Your task to perform on an android device: Open battery settings Image 0: 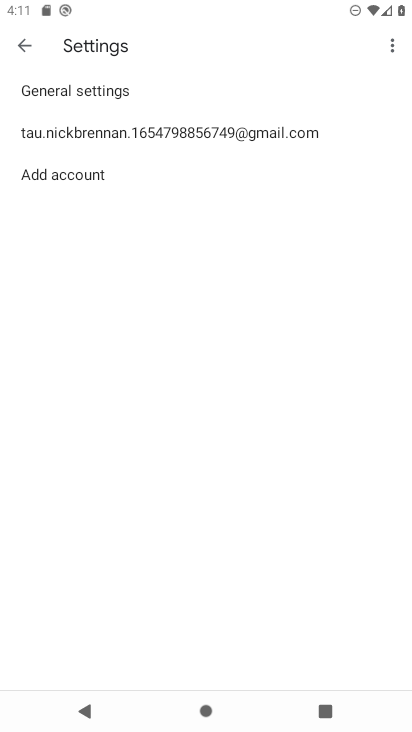
Step 0: press home button
Your task to perform on an android device: Open battery settings Image 1: 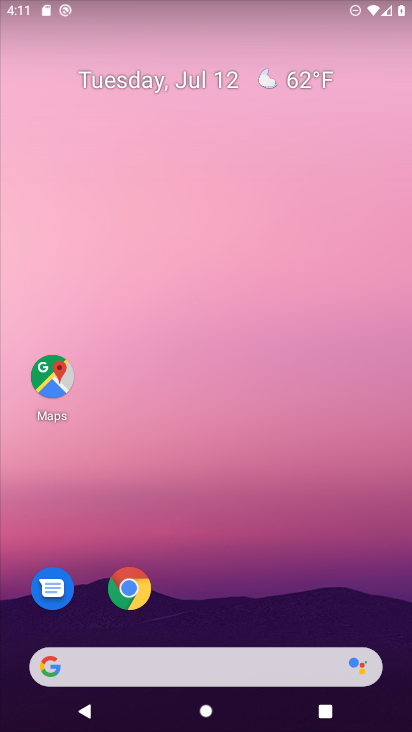
Step 1: drag from (240, 570) to (264, 101)
Your task to perform on an android device: Open battery settings Image 2: 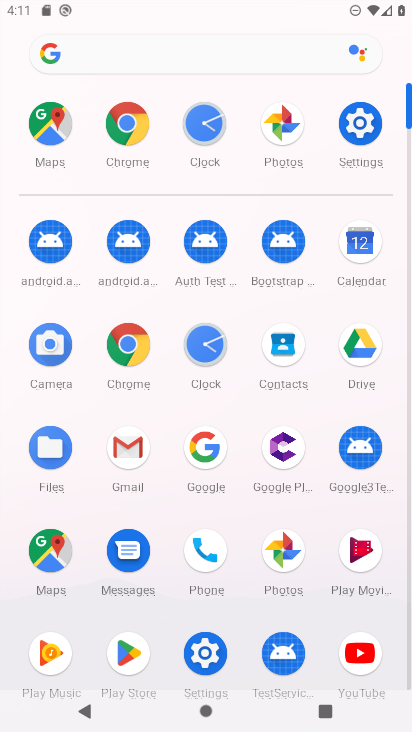
Step 2: click (206, 660)
Your task to perform on an android device: Open battery settings Image 3: 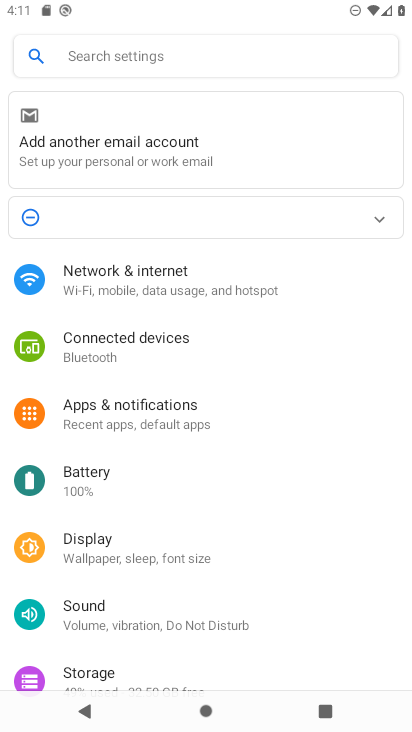
Step 3: click (106, 489)
Your task to perform on an android device: Open battery settings Image 4: 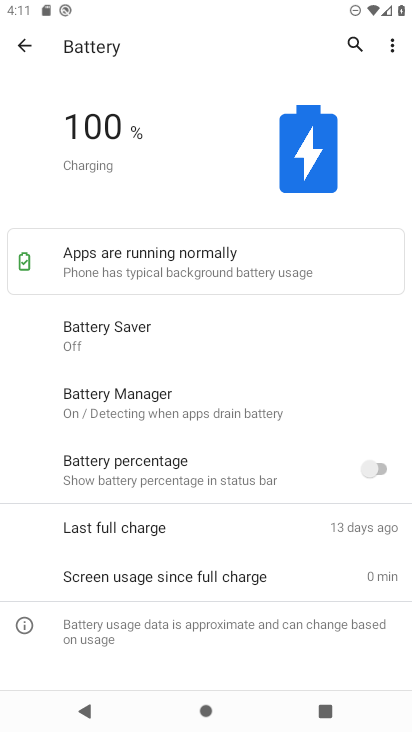
Step 4: task complete